Your task to perform on an android device: turn notification dots off Image 0: 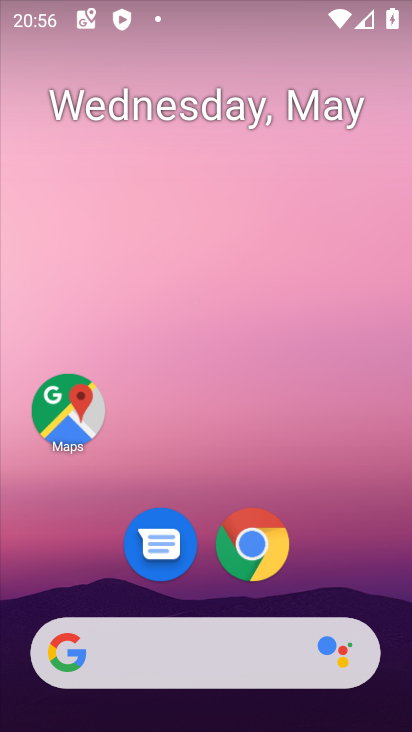
Step 0: drag from (201, 598) to (235, 84)
Your task to perform on an android device: turn notification dots off Image 1: 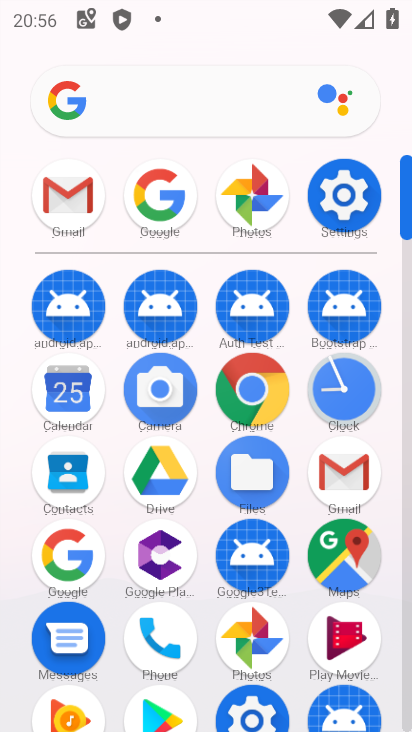
Step 1: click (323, 210)
Your task to perform on an android device: turn notification dots off Image 2: 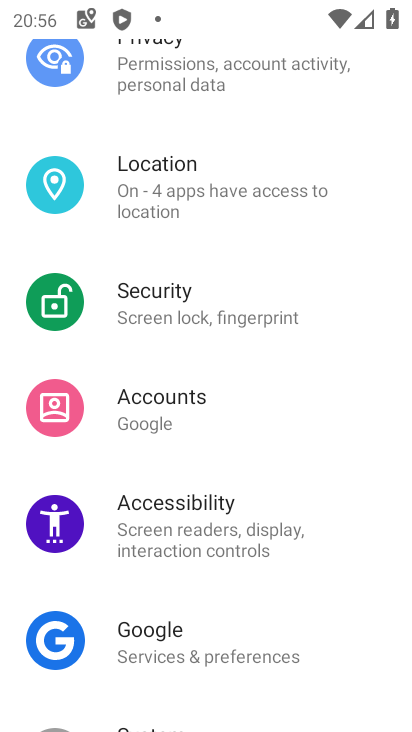
Step 2: drag from (243, 114) to (296, 559)
Your task to perform on an android device: turn notification dots off Image 3: 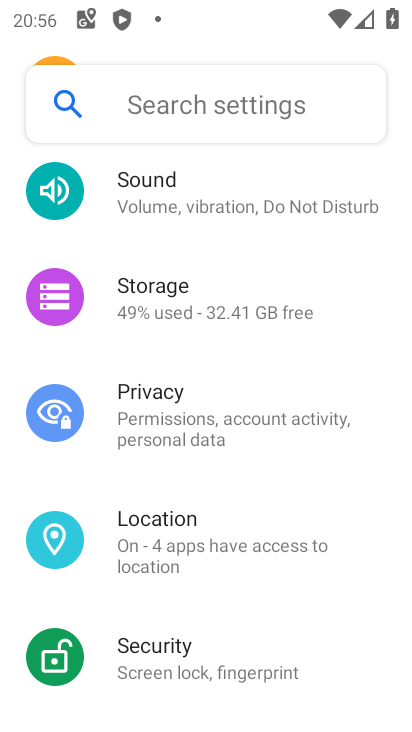
Step 3: drag from (199, 174) to (248, 551)
Your task to perform on an android device: turn notification dots off Image 4: 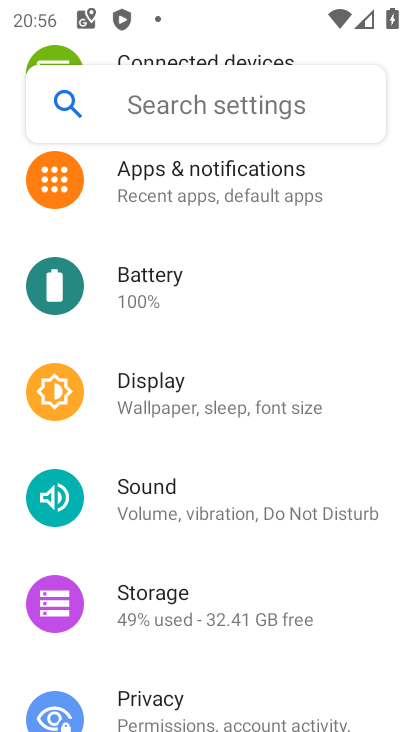
Step 4: drag from (236, 179) to (230, 642)
Your task to perform on an android device: turn notification dots off Image 5: 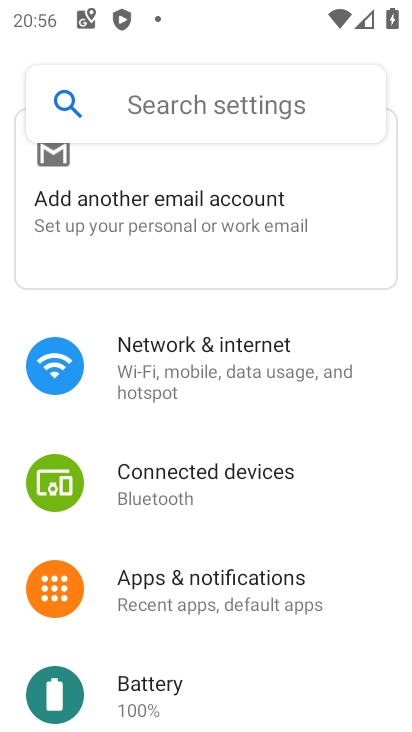
Step 5: click (167, 589)
Your task to perform on an android device: turn notification dots off Image 6: 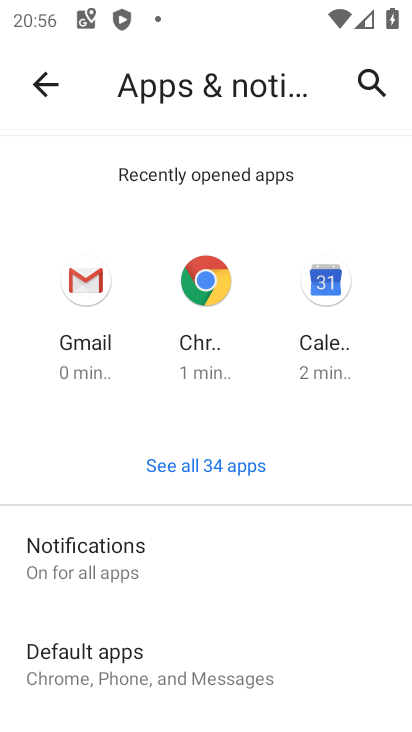
Step 6: drag from (164, 637) to (233, 274)
Your task to perform on an android device: turn notification dots off Image 7: 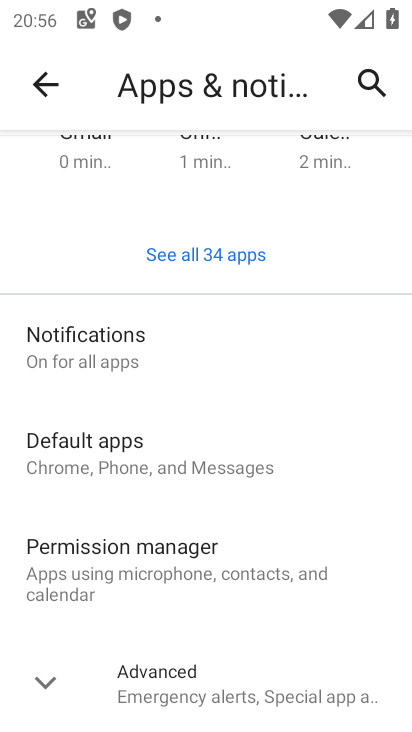
Step 7: click (165, 355)
Your task to perform on an android device: turn notification dots off Image 8: 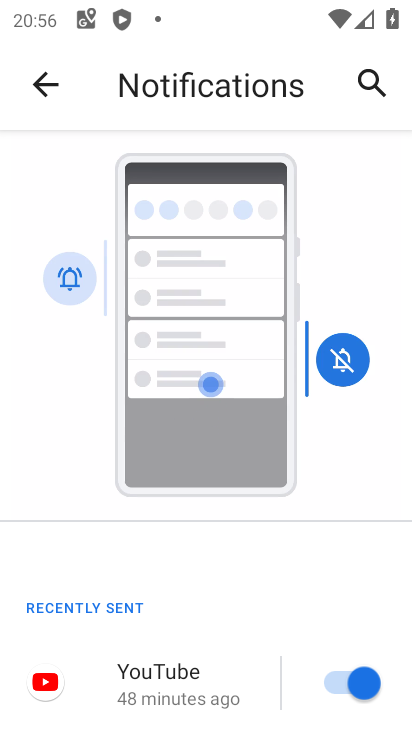
Step 8: drag from (203, 598) to (235, 229)
Your task to perform on an android device: turn notification dots off Image 9: 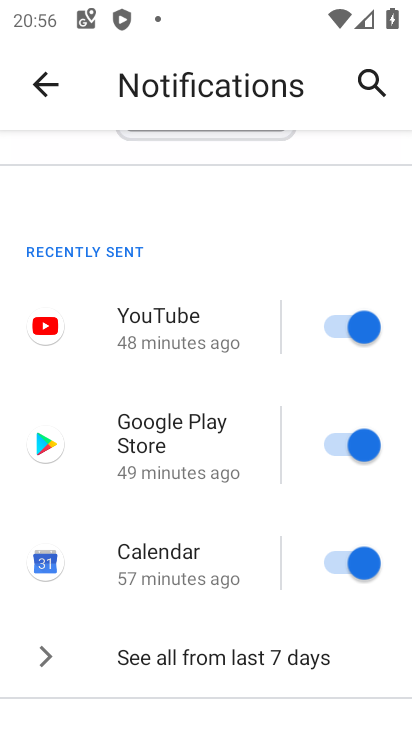
Step 9: drag from (167, 635) to (240, 339)
Your task to perform on an android device: turn notification dots off Image 10: 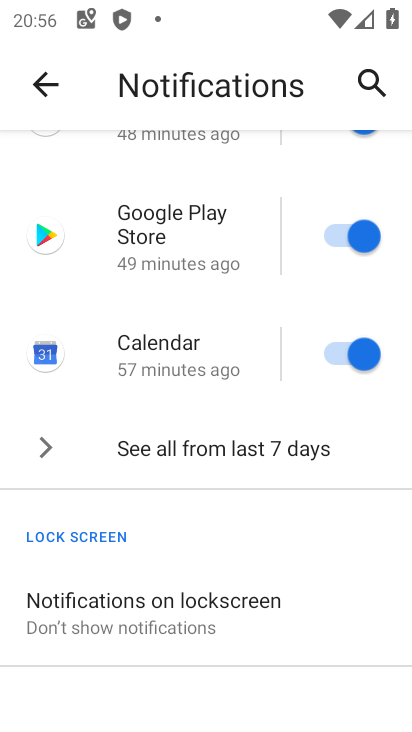
Step 10: drag from (180, 640) to (227, 347)
Your task to perform on an android device: turn notification dots off Image 11: 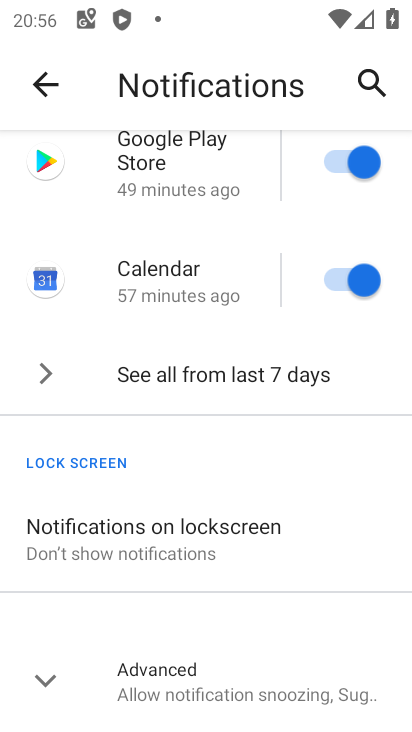
Step 11: click (165, 698)
Your task to perform on an android device: turn notification dots off Image 12: 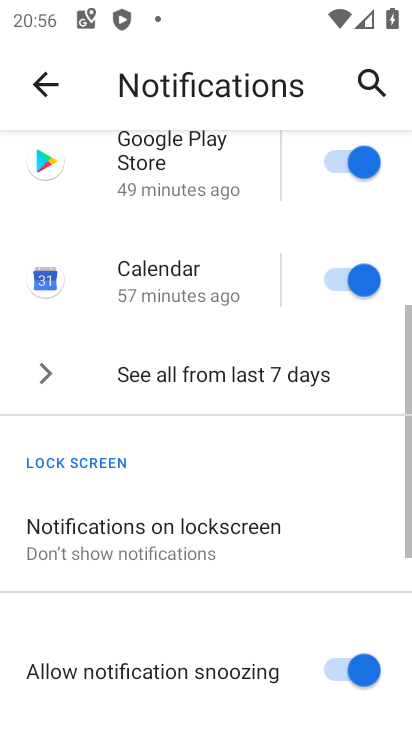
Step 12: task complete